Your task to perform on an android device: turn off translation in the chrome app Image 0: 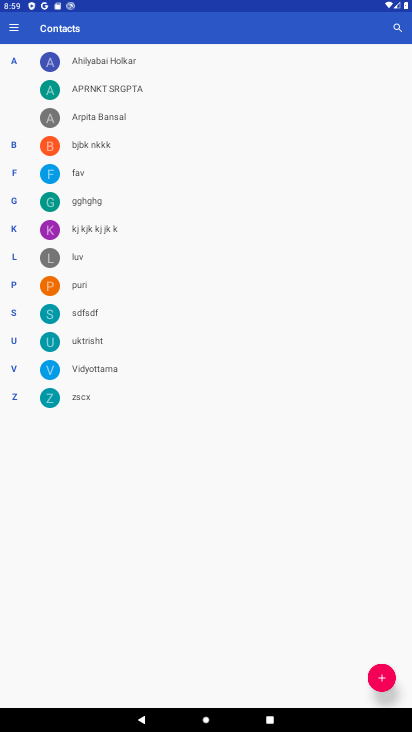
Step 0: press home button
Your task to perform on an android device: turn off translation in the chrome app Image 1: 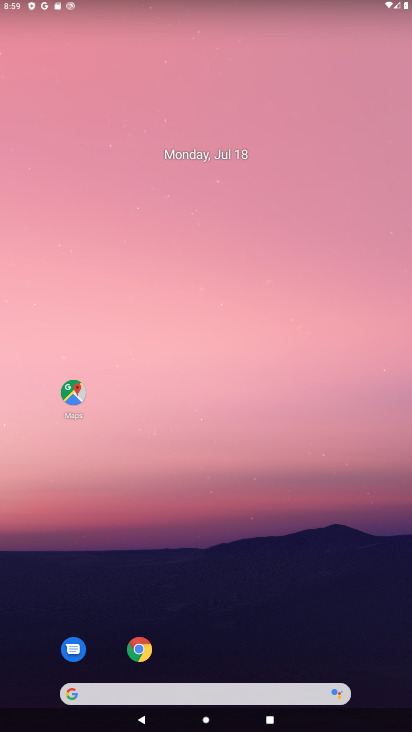
Step 1: drag from (261, 684) to (270, 65)
Your task to perform on an android device: turn off translation in the chrome app Image 2: 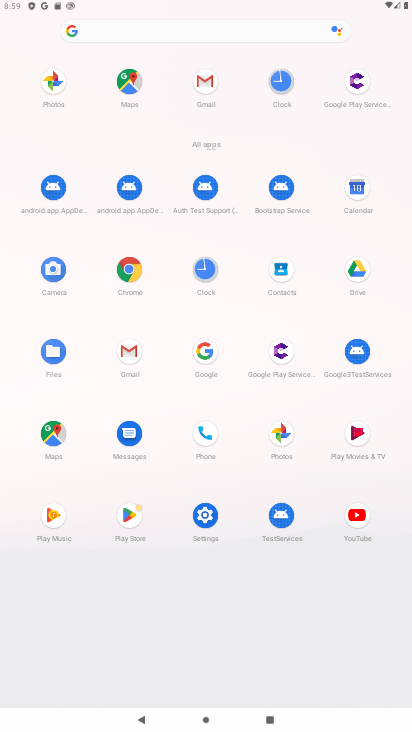
Step 2: click (132, 272)
Your task to perform on an android device: turn off translation in the chrome app Image 3: 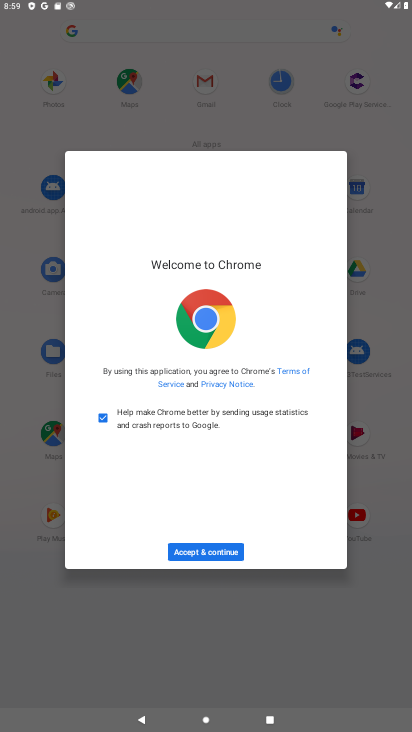
Step 3: click (224, 542)
Your task to perform on an android device: turn off translation in the chrome app Image 4: 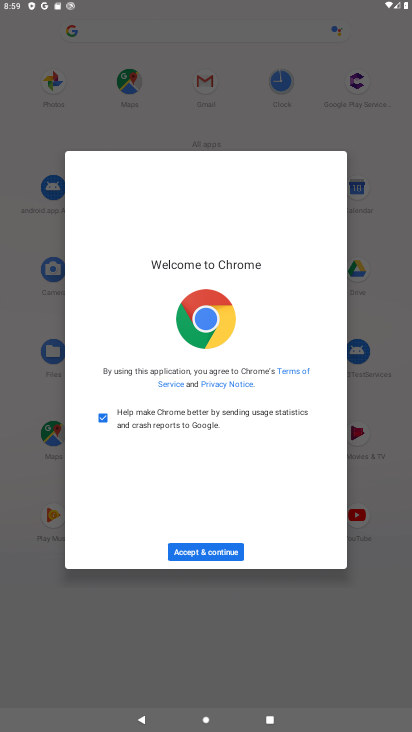
Step 4: click (224, 552)
Your task to perform on an android device: turn off translation in the chrome app Image 5: 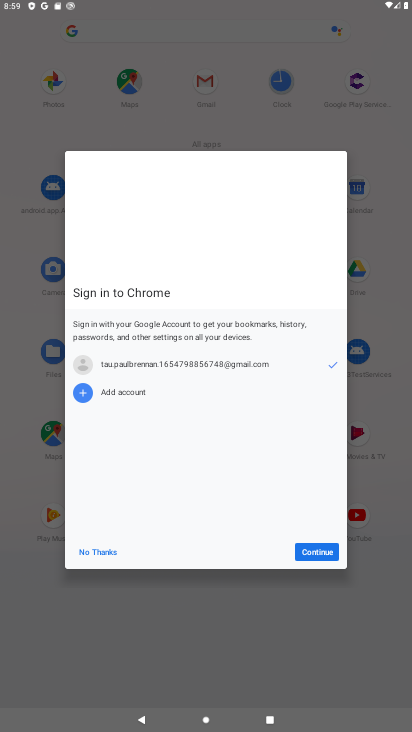
Step 5: click (90, 553)
Your task to perform on an android device: turn off translation in the chrome app Image 6: 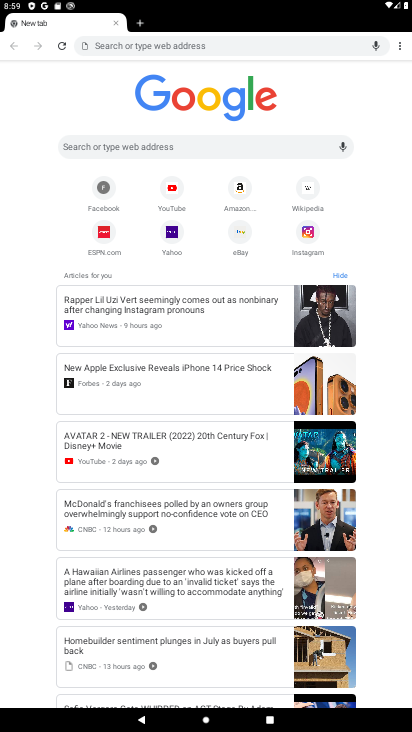
Step 6: click (401, 43)
Your task to perform on an android device: turn off translation in the chrome app Image 7: 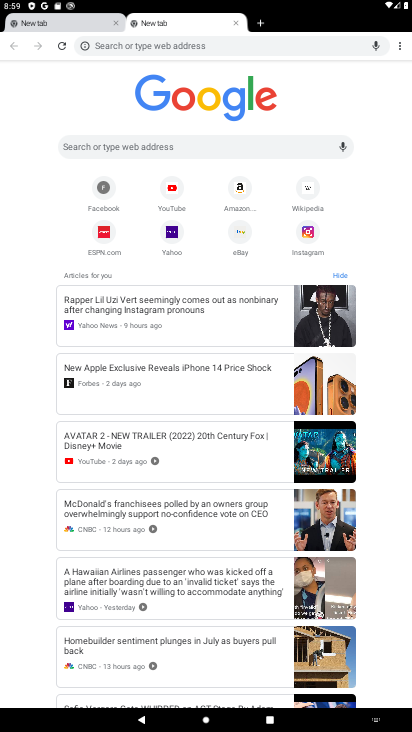
Step 7: drag from (402, 44) to (351, 217)
Your task to perform on an android device: turn off translation in the chrome app Image 8: 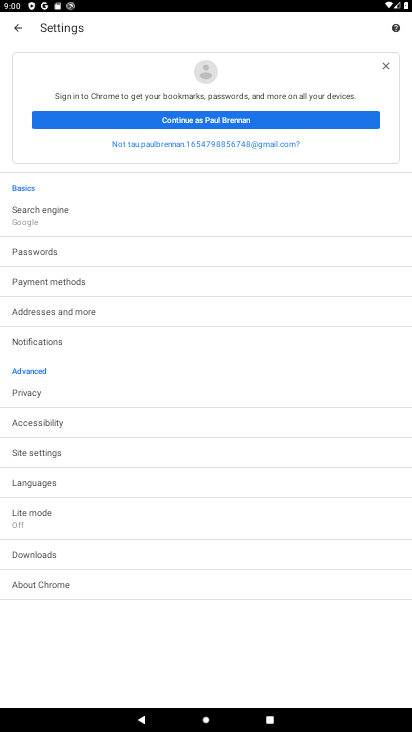
Step 8: click (23, 488)
Your task to perform on an android device: turn off translation in the chrome app Image 9: 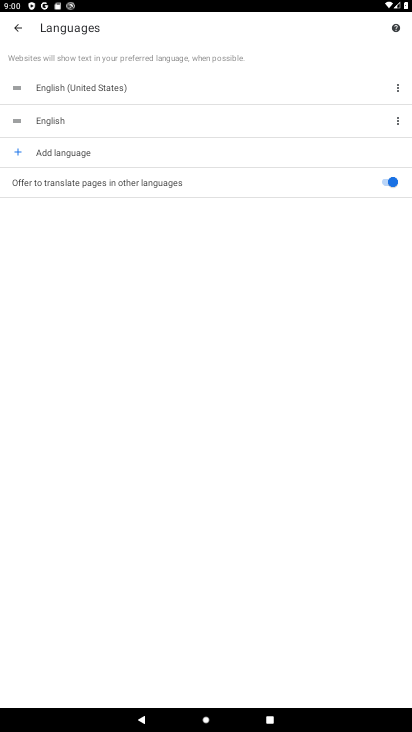
Step 9: click (392, 186)
Your task to perform on an android device: turn off translation in the chrome app Image 10: 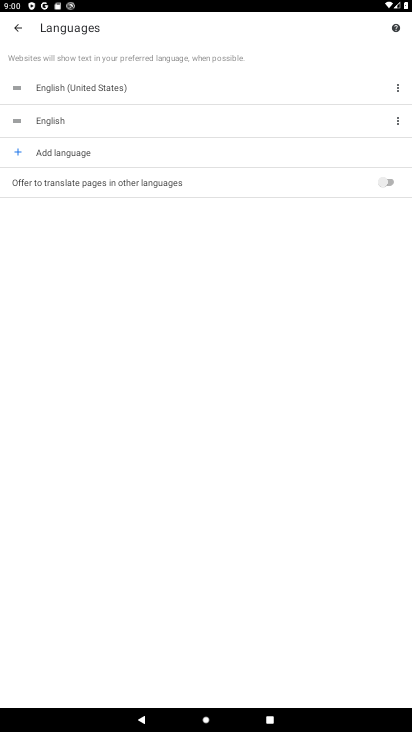
Step 10: task complete